Your task to perform on an android device: Open Android settings Image 0: 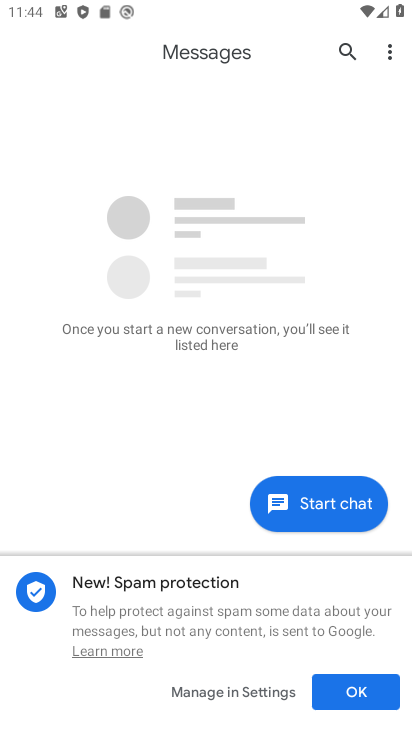
Step 0: press home button
Your task to perform on an android device: Open Android settings Image 1: 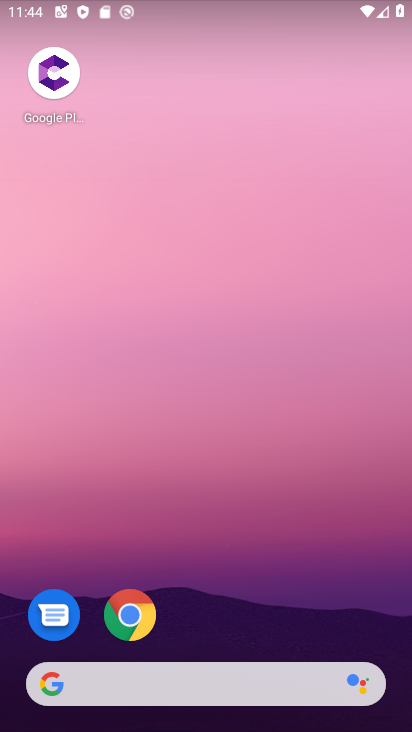
Step 1: drag from (240, 625) to (253, 199)
Your task to perform on an android device: Open Android settings Image 2: 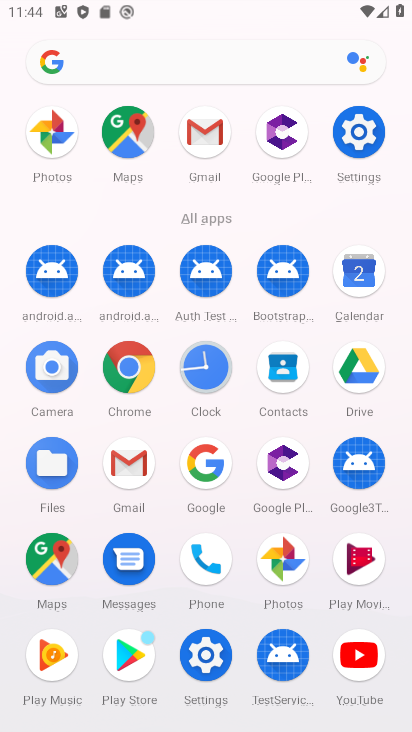
Step 2: click (349, 129)
Your task to perform on an android device: Open Android settings Image 3: 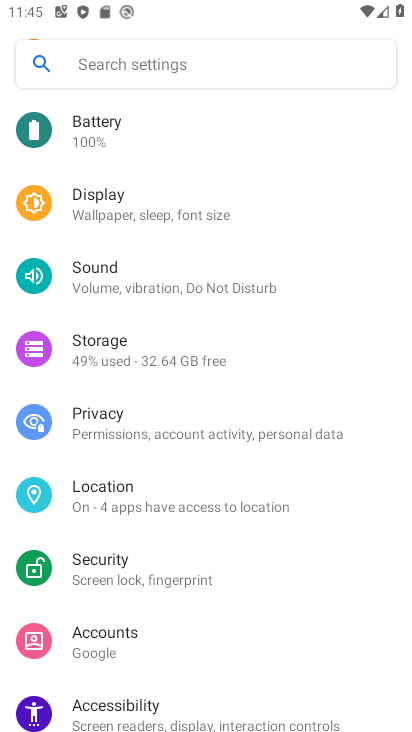
Step 3: task complete